Your task to perform on an android device: search for starred emails in the gmail app Image 0: 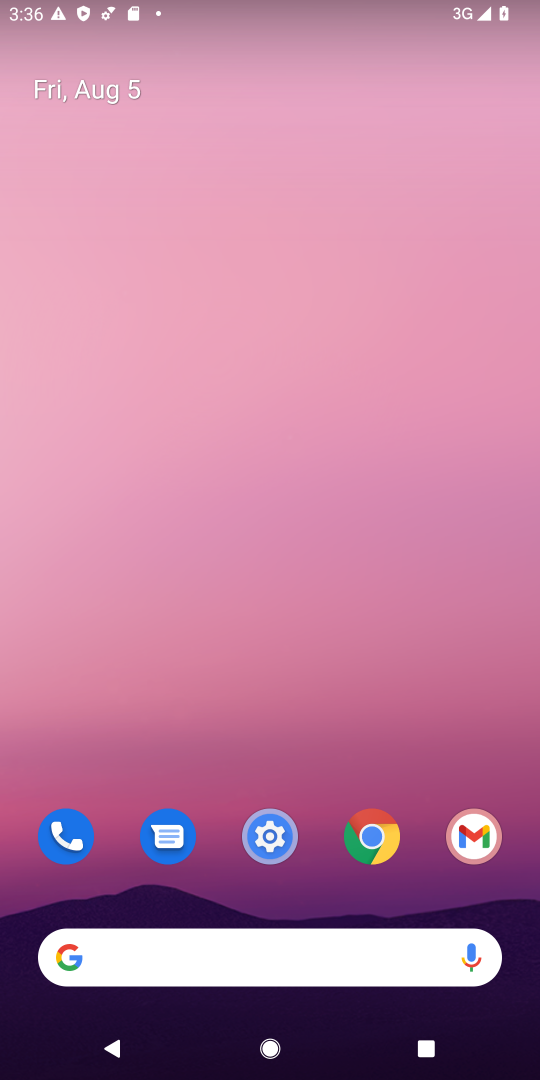
Step 0: drag from (346, 874) to (426, 0)
Your task to perform on an android device: search for starred emails in the gmail app Image 1: 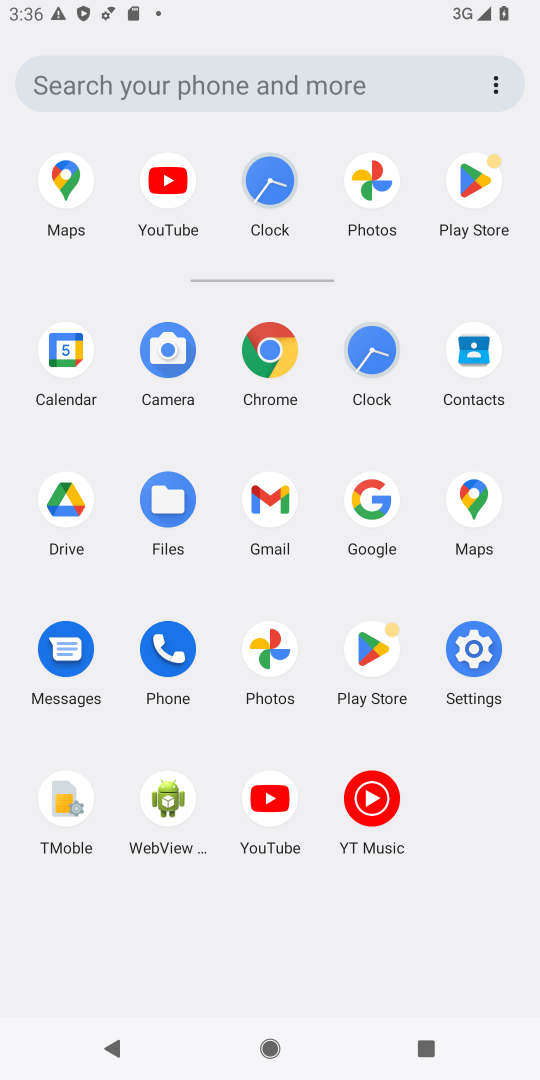
Step 1: click (276, 499)
Your task to perform on an android device: search for starred emails in the gmail app Image 2: 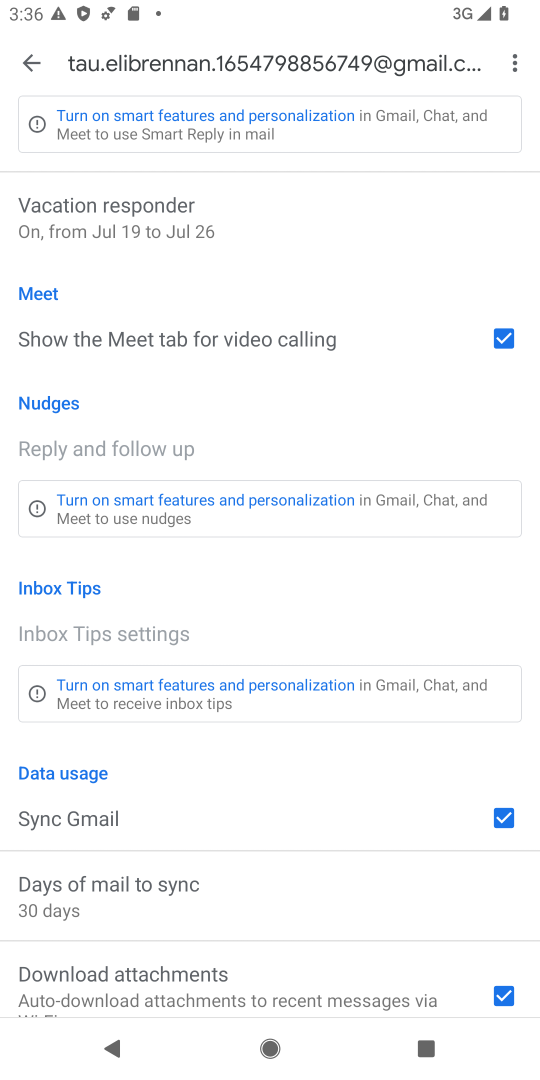
Step 2: drag from (276, 219) to (194, 961)
Your task to perform on an android device: search for starred emails in the gmail app Image 3: 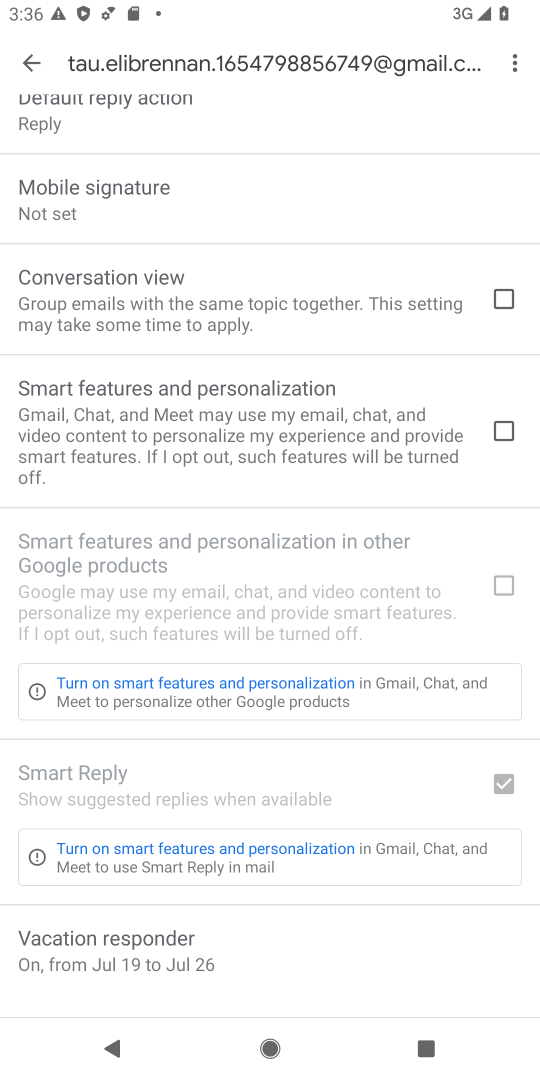
Step 3: click (14, 68)
Your task to perform on an android device: search for starred emails in the gmail app Image 4: 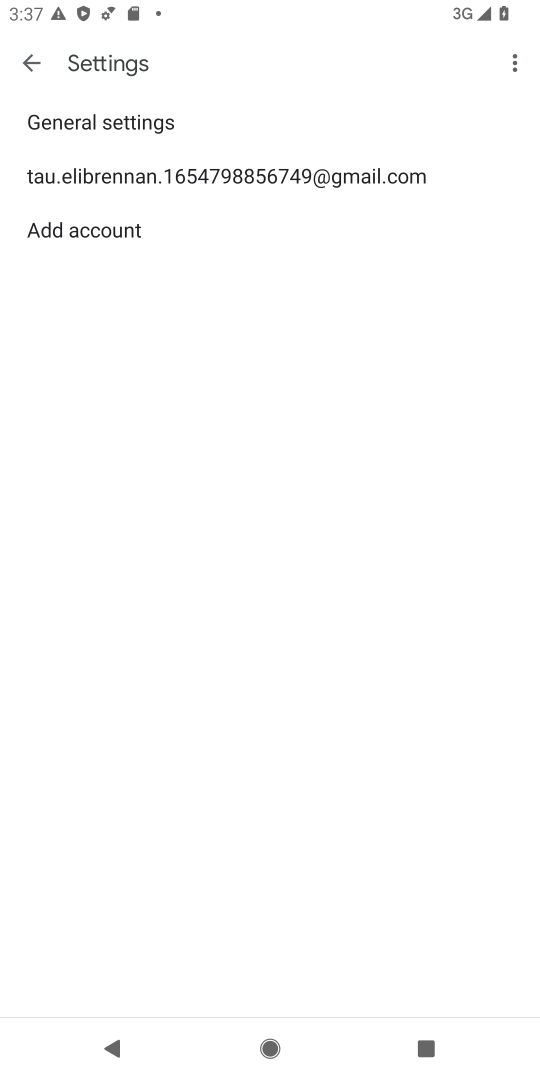
Step 4: click (23, 65)
Your task to perform on an android device: search for starred emails in the gmail app Image 5: 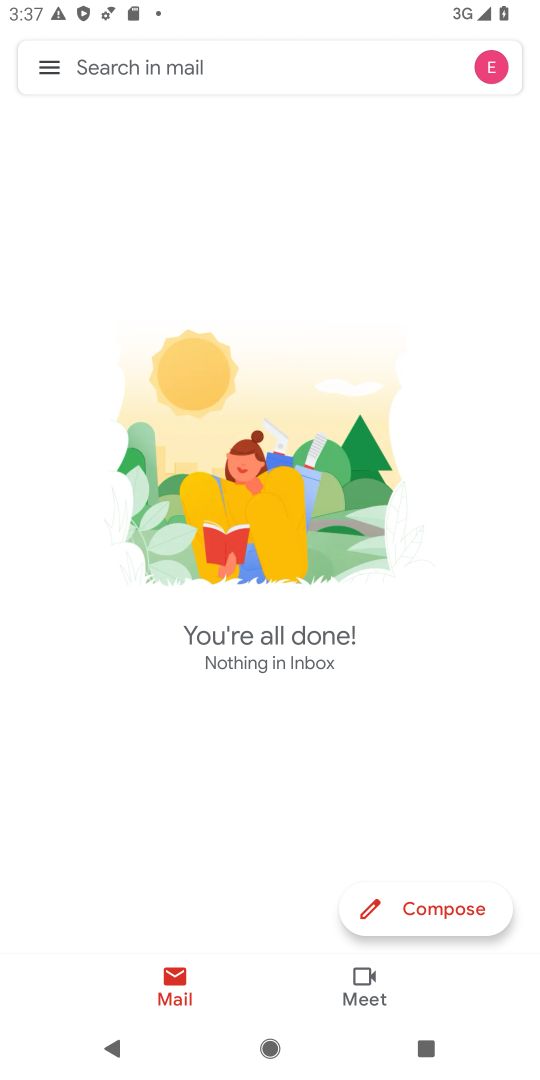
Step 5: click (49, 79)
Your task to perform on an android device: search for starred emails in the gmail app Image 6: 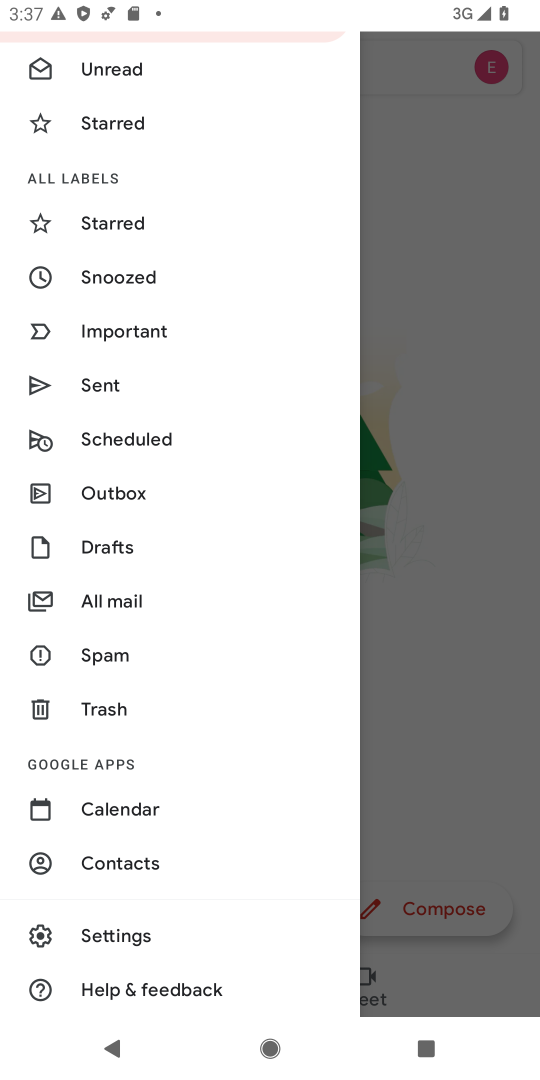
Step 6: click (84, 125)
Your task to perform on an android device: search for starred emails in the gmail app Image 7: 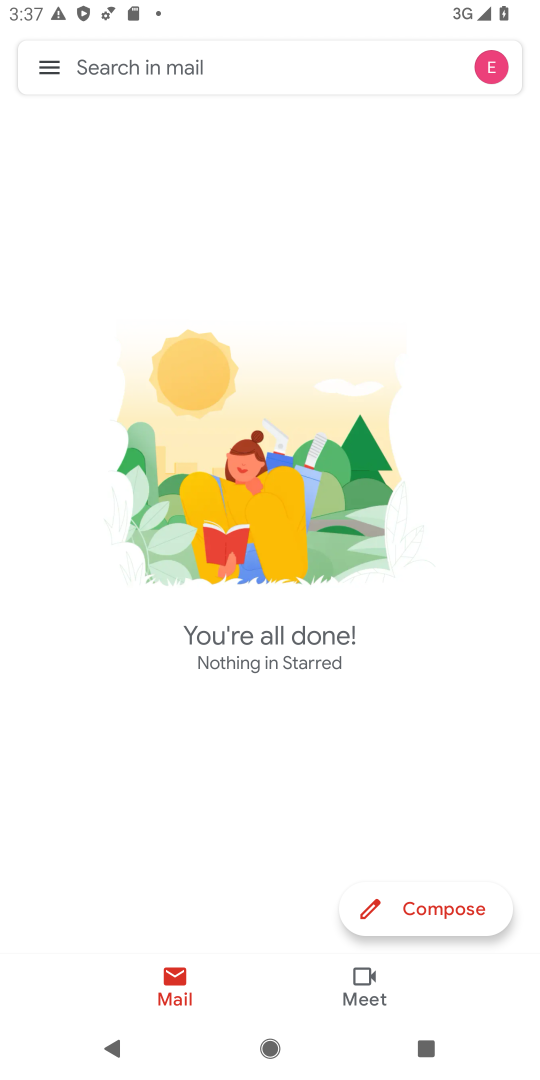
Step 7: task complete